Your task to perform on an android device: uninstall "Pandora - Music & Podcasts" Image 0: 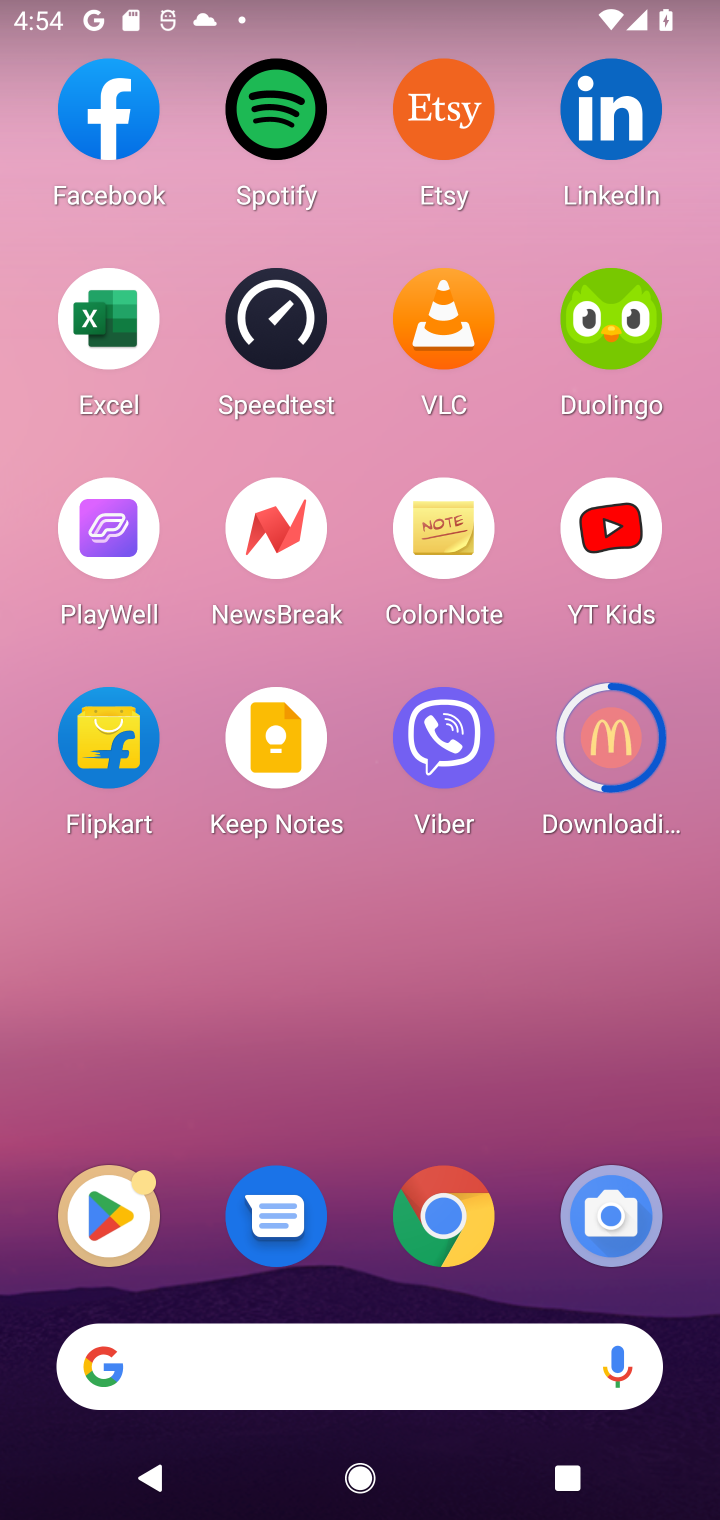
Step 0: click (133, 1178)
Your task to perform on an android device: uninstall "Pandora - Music & Podcasts" Image 1: 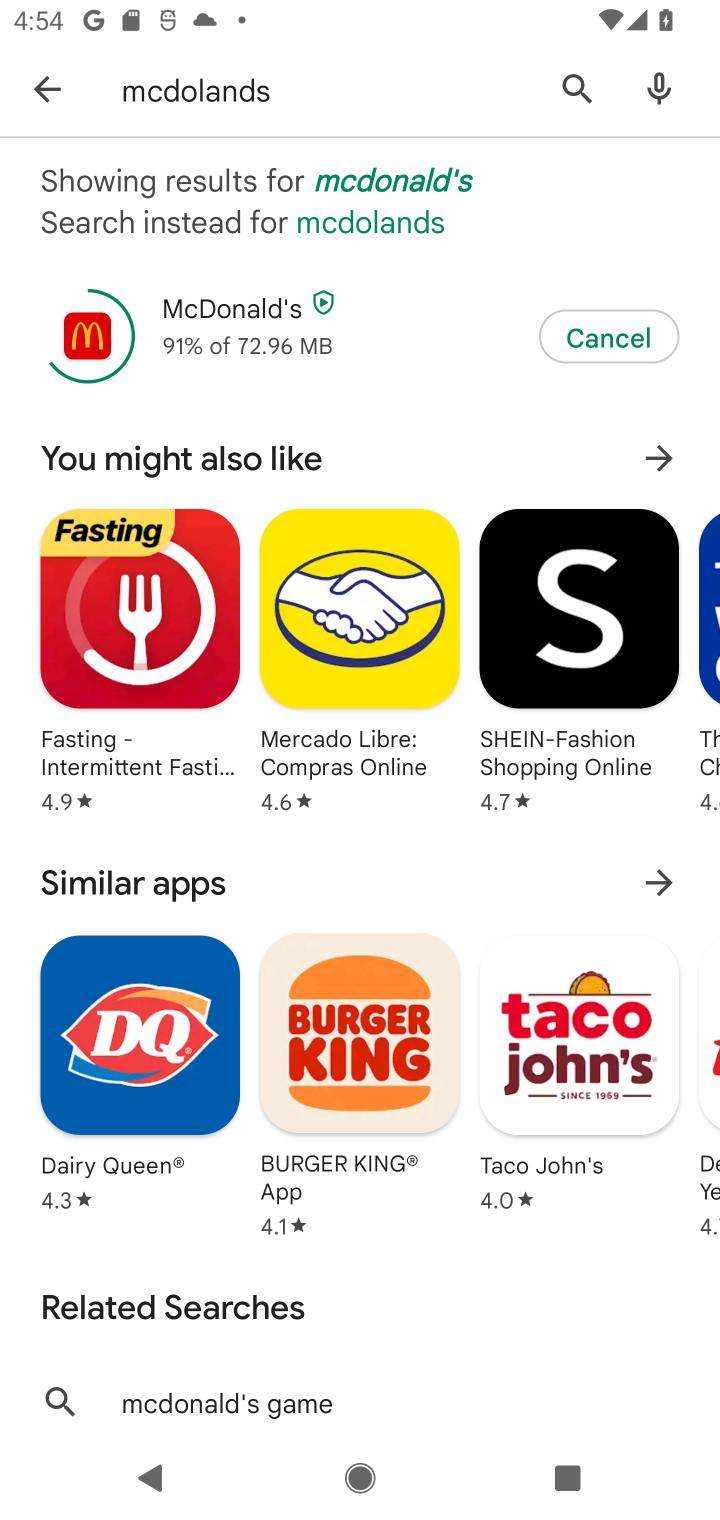
Step 1: click (576, 85)
Your task to perform on an android device: uninstall "Pandora - Music & Podcasts" Image 2: 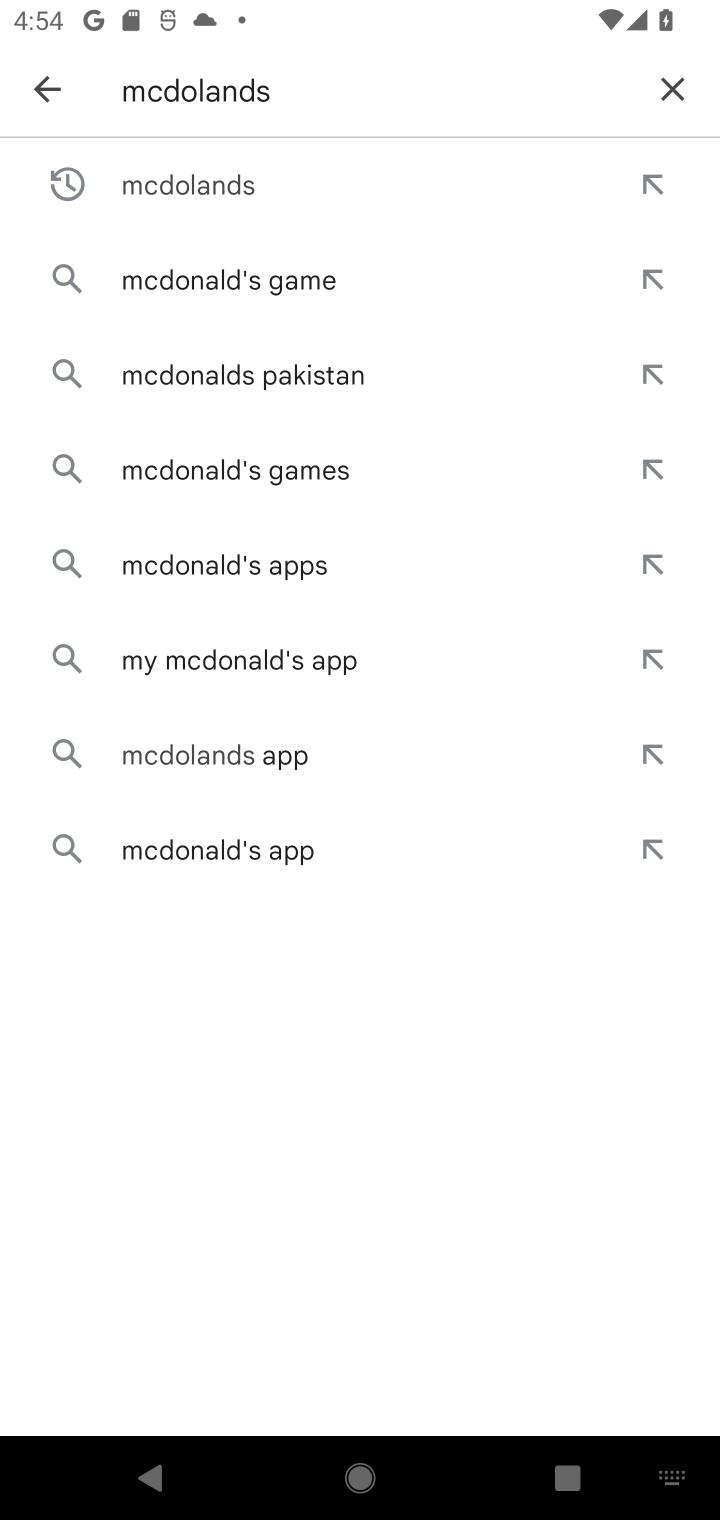
Step 2: click (688, 94)
Your task to perform on an android device: uninstall "Pandora - Music & Podcasts" Image 3: 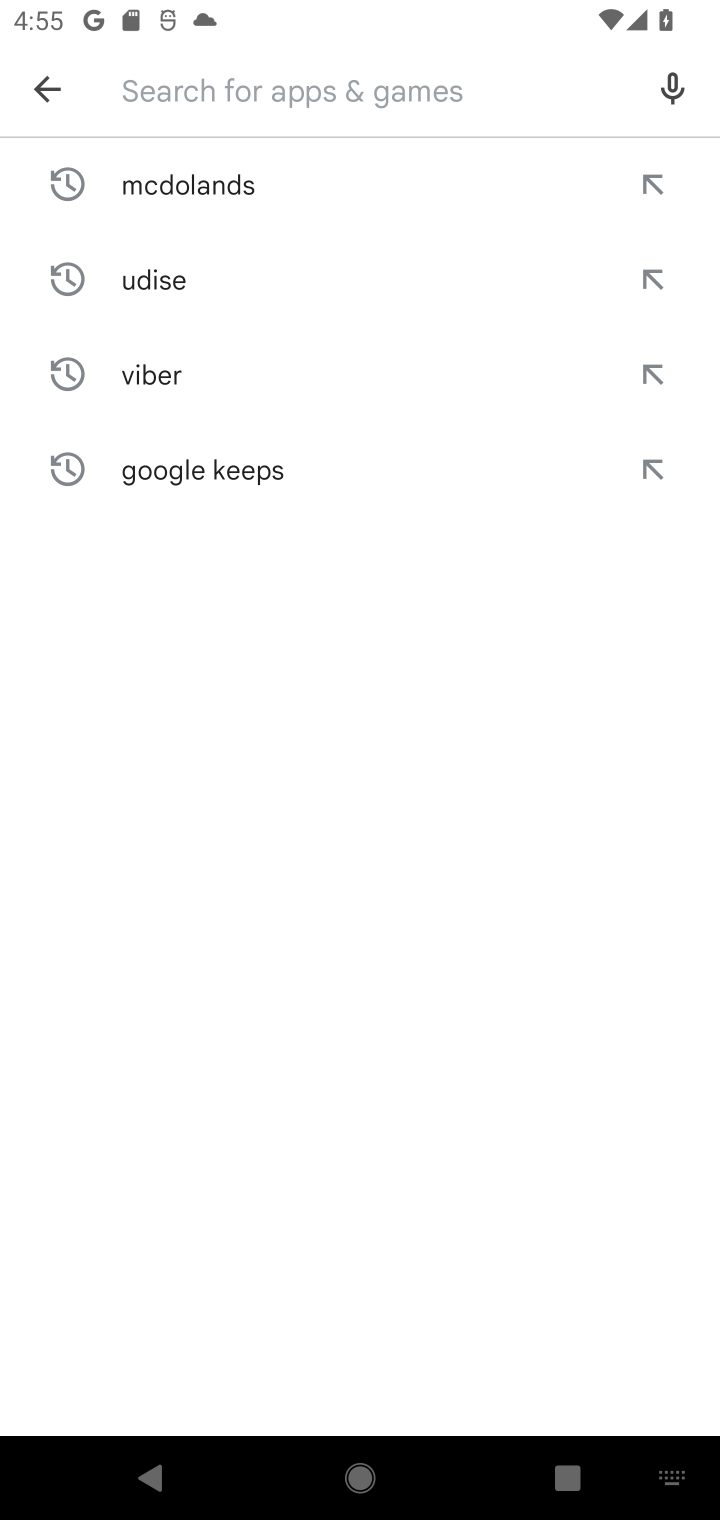
Step 3: type "pandora"
Your task to perform on an android device: uninstall "Pandora - Music & Podcasts" Image 4: 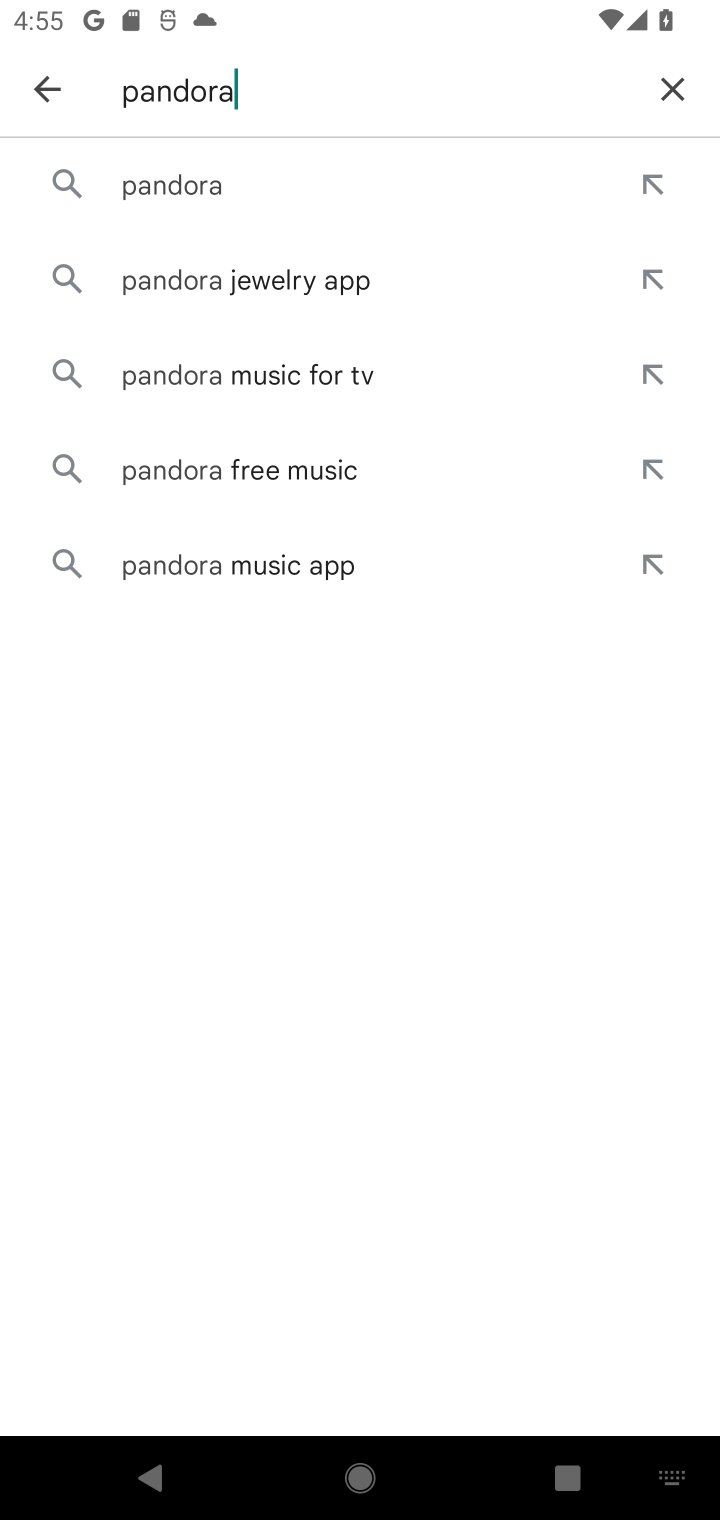
Step 4: click (437, 229)
Your task to perform on an android device: uninstall "Pandora - Music & Podcasts" Image 5: 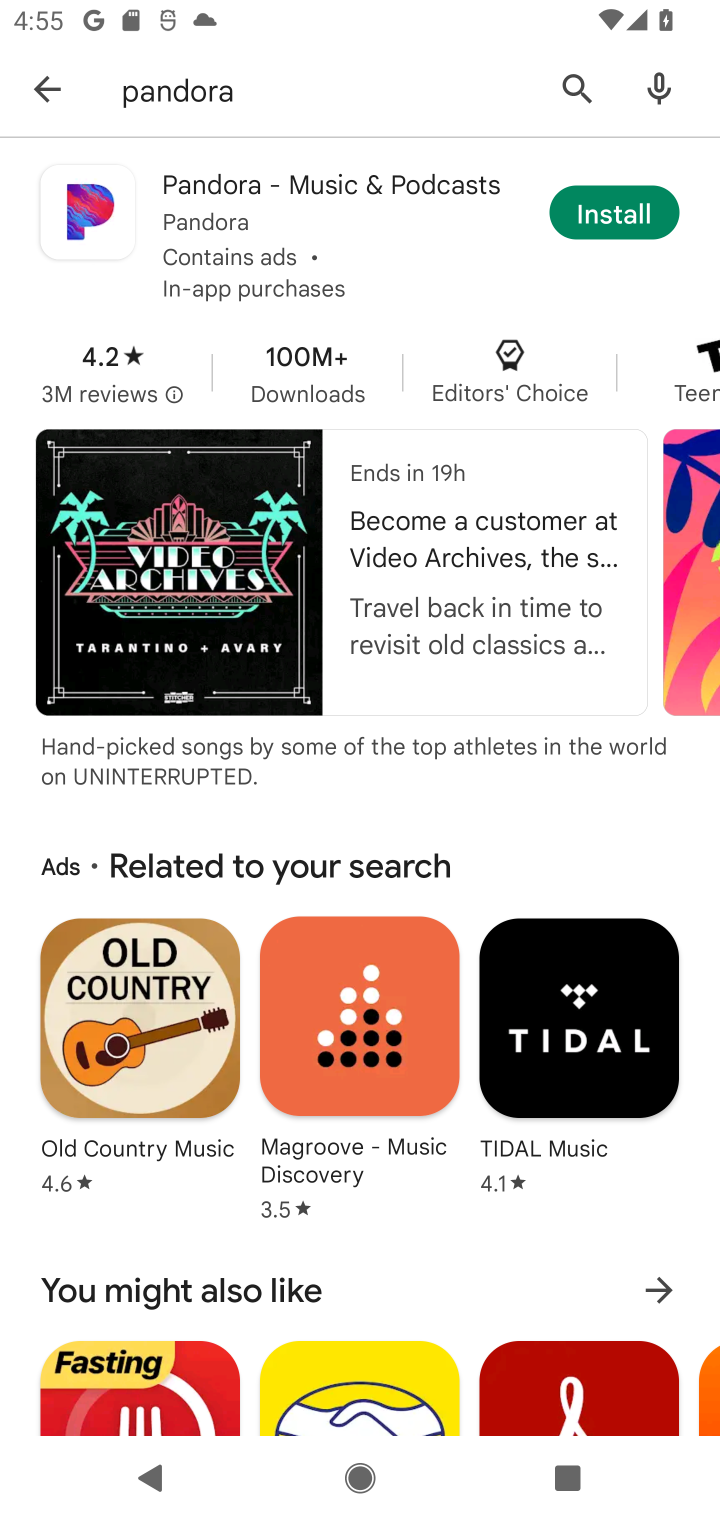
Step 5: click (611, 229)
Your task to perform on an android device: uninstall "Pandora - Music & Podcasts" Image 6: 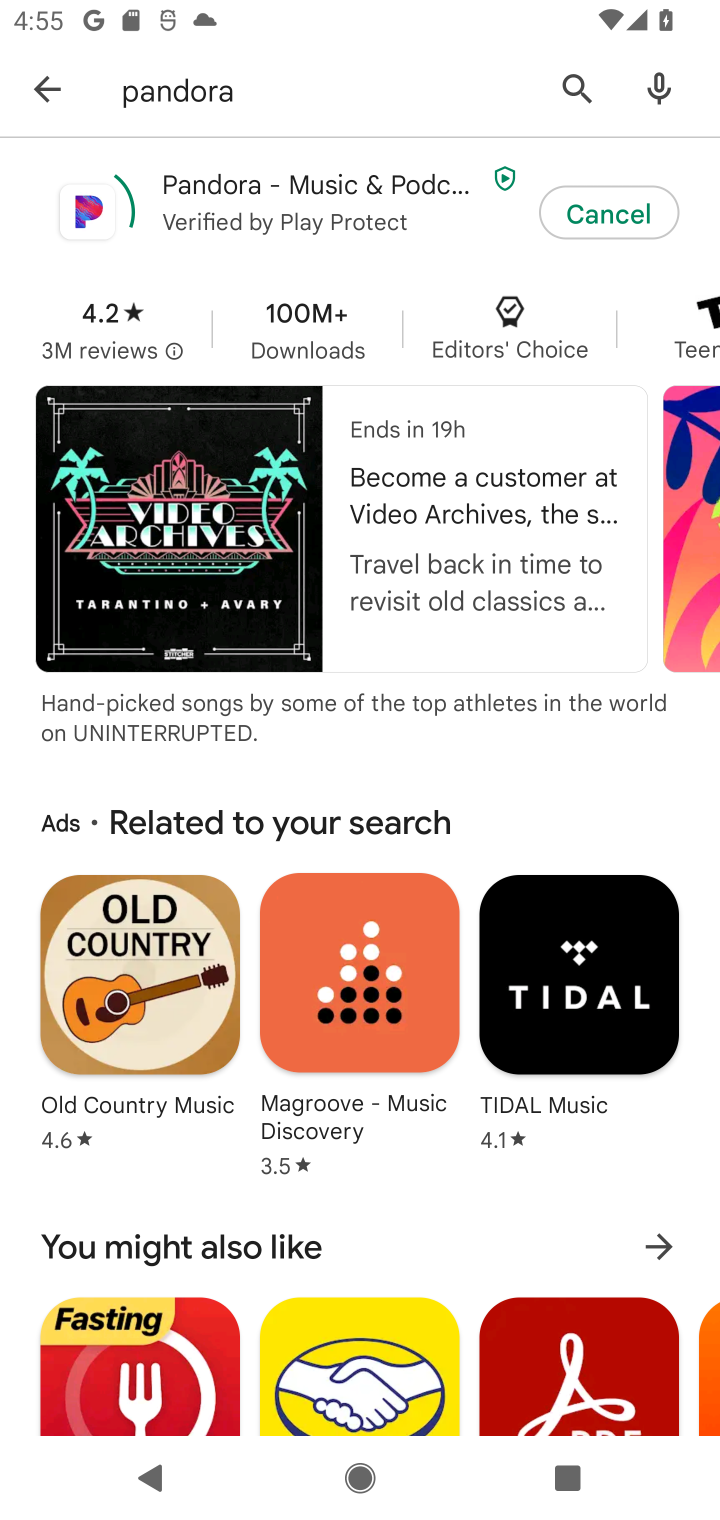
Step 6: task complete